Your task to perform on an android device: Open accessibility settings Image 0: 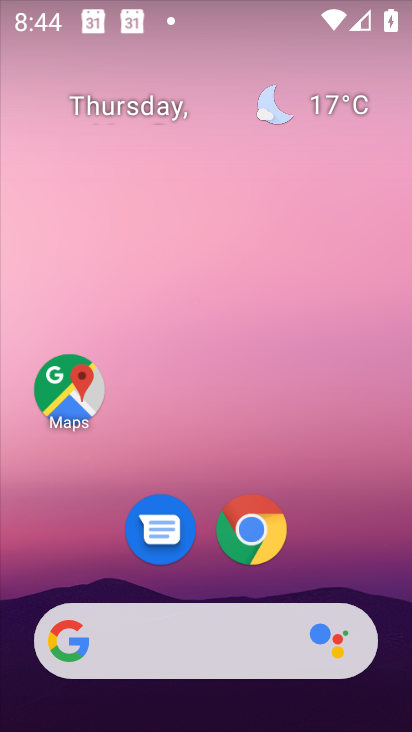
Step 0: drag from (320, 550) to (226, 4)
Your task to perform on an android device: Open accessibility settings Image 1: 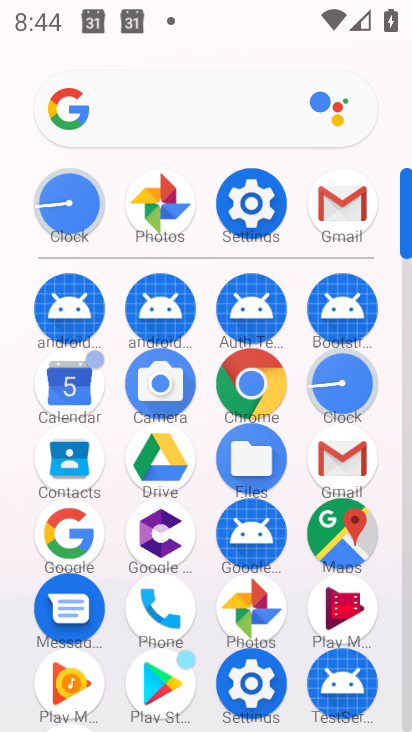
Step 1: click (253, 208)
Your task to perform on an android device: Open accessibility settings Image 2: 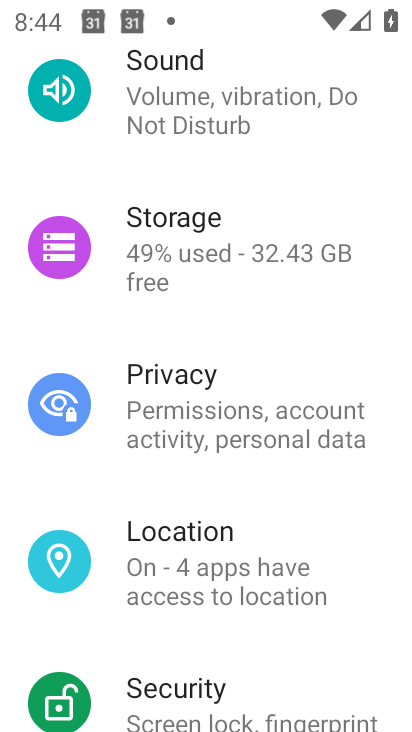
Step 2: drag from (302, 518) to (283, 266)
Your task to perform on an android device: Open accessibility settings Image 3: 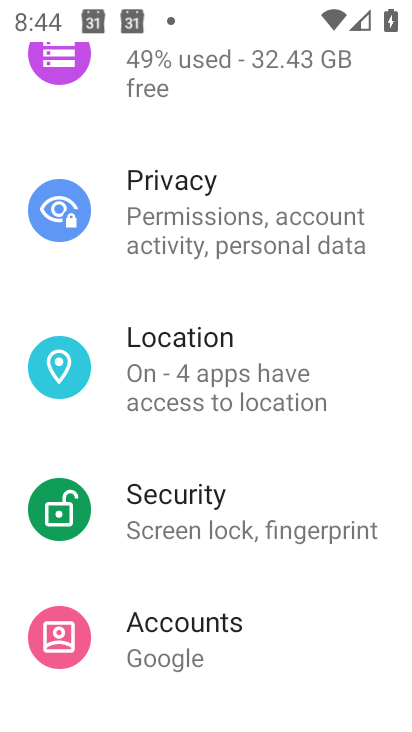
Step 3: drag from (267, 608) to (244, 156)
Your task to perform on an android device: Open accessibility settings Image 4: 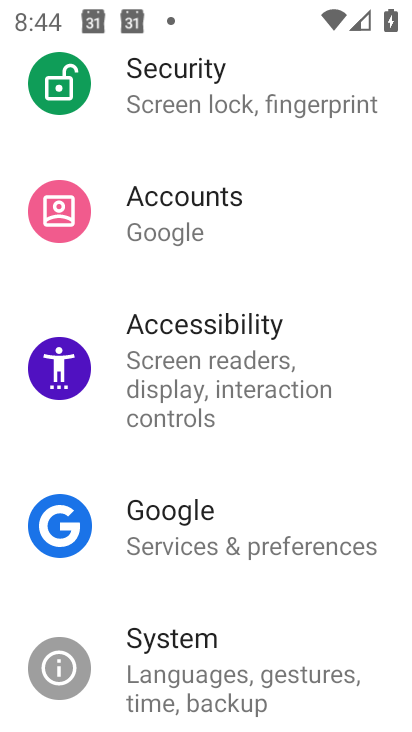
Step 4: click (207, 328)
Your task to perform on an android device: Open accessibility settings Image 5: 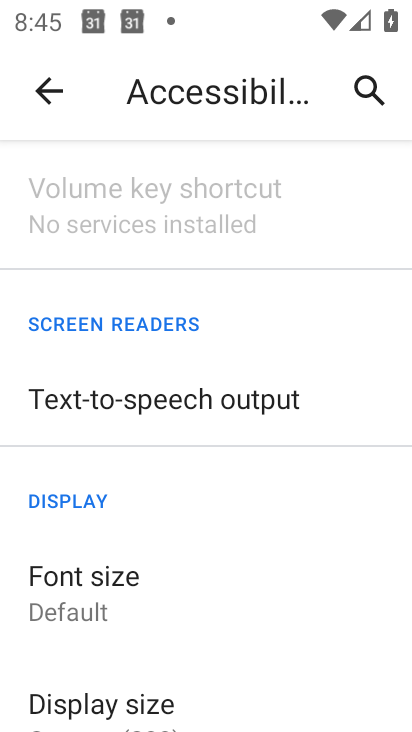
Step 5: task complete